Your task to perform on an android device: delete the emails in spam in the gmail app Image 0: 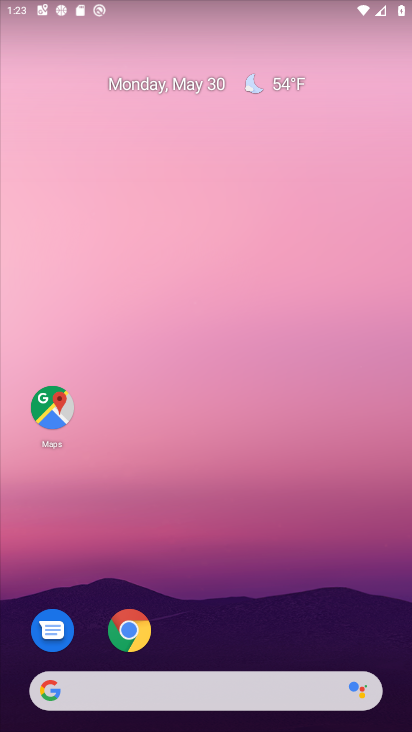
Step 0: press home button
Your task to perform on an android device: delete the emails in spam in the gmail app Image 1: 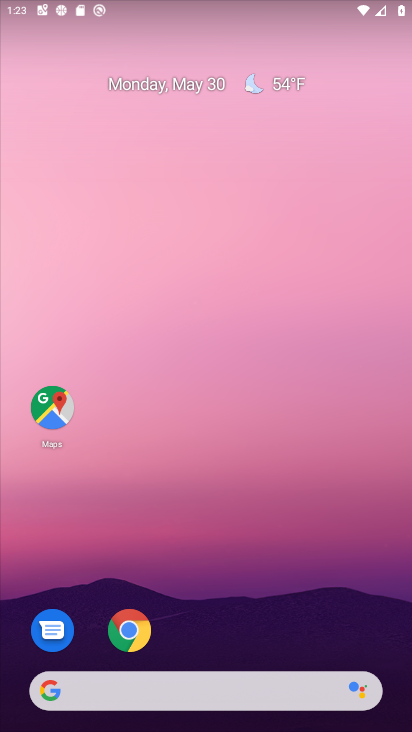
Step 1: drag from (205, 635) to (347, 119)
Your task to perform on an android device: delete the emails in spam in the gmail app Image 2: 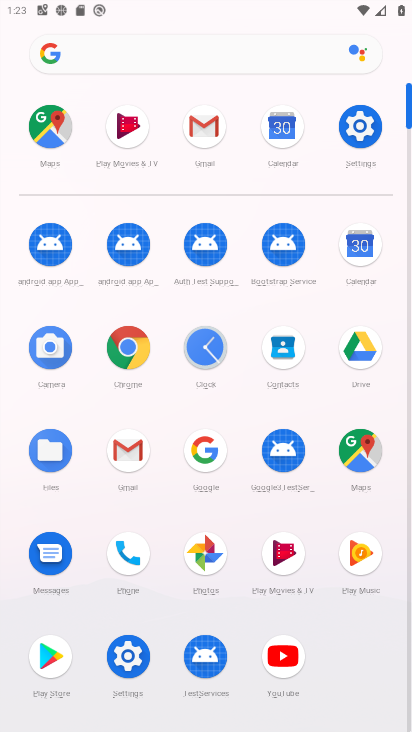
Step 2: click (214, 120)
Your task to perform on an android device: delete the emails in spam in the gmail app Image 3: 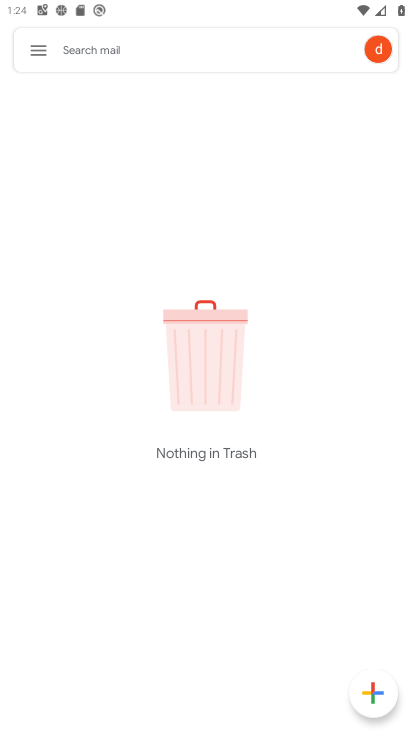
Step 3: click (36, 56)
Your task to perform on an android device: delete the emails in spam in the gmail app Image 4: 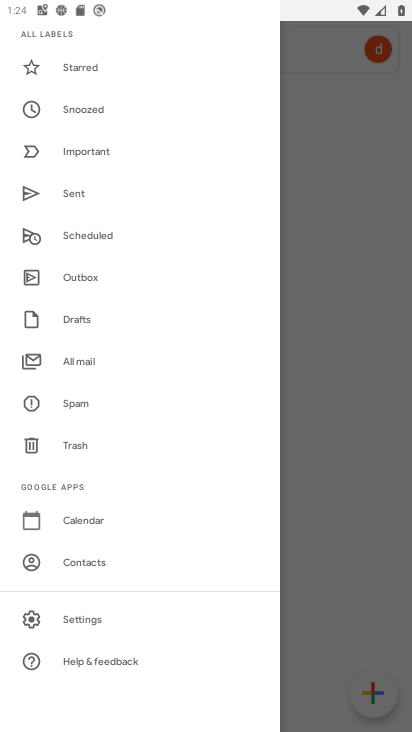
Step 4: click (69, 400)
Your task to perform on an android device: delete the emails in spam in the gmail app Image 5: 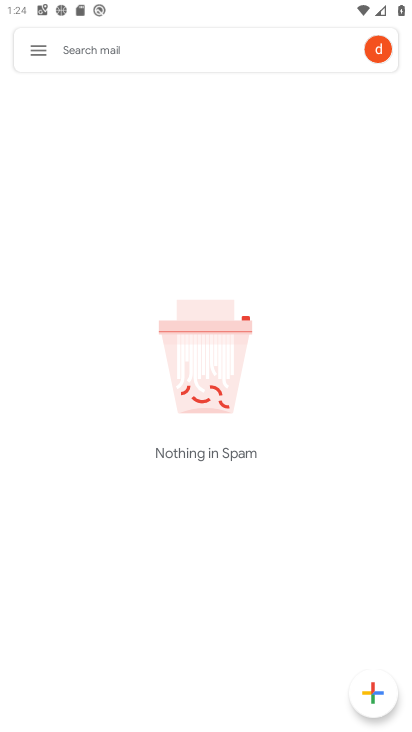
Step 5: task complete